Your task to perform on an android device: Turn on the flashlight Image 0: 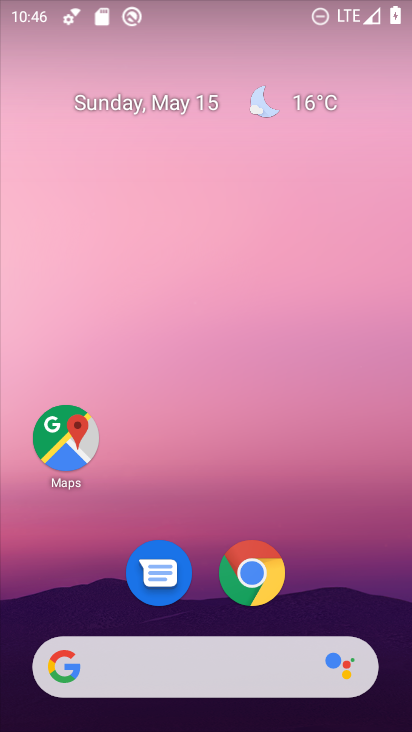
Step 0: drag from (312, 8) to (295, 731)
Your task to perform on an android device: Turn on the flashlight Image 1: 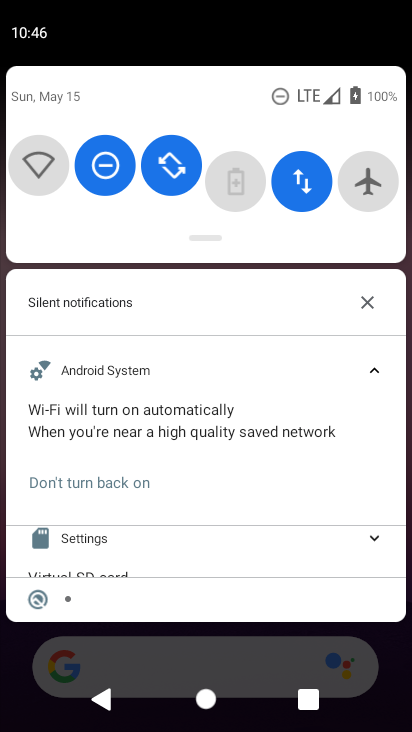
Step 1: task complete